Your task to perform on an android device: Go to internet settings Image 0: 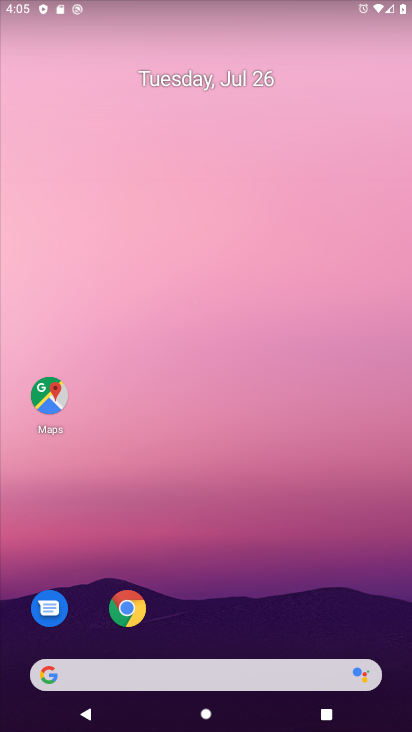
Step 0: drag from (381, 692) to (290, 182)
Your task to perform on an android device: Go to internet settings Image 1: 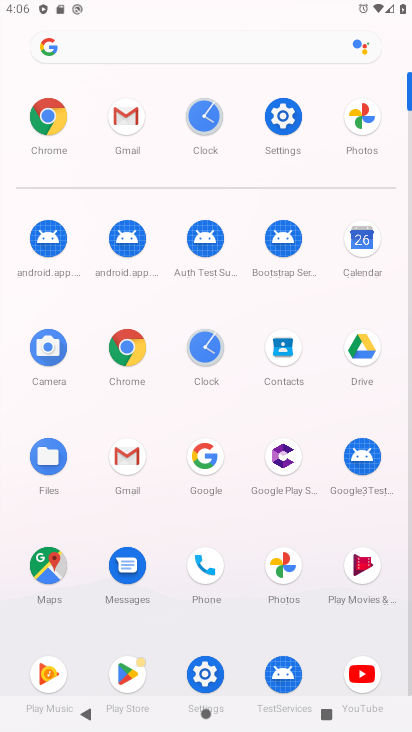
Step 1: click (281, 116)
Your task to perform on an android device: Go to internet settings Image 2: 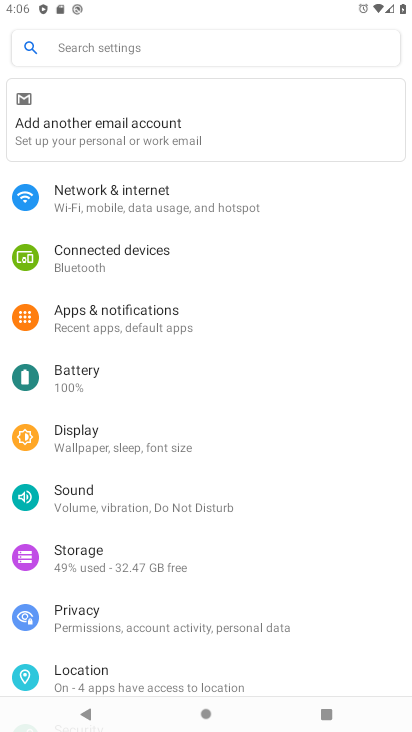
Step 2: click (128, 199)
Your task to perform on an android device: Go to internet settings Image 3: 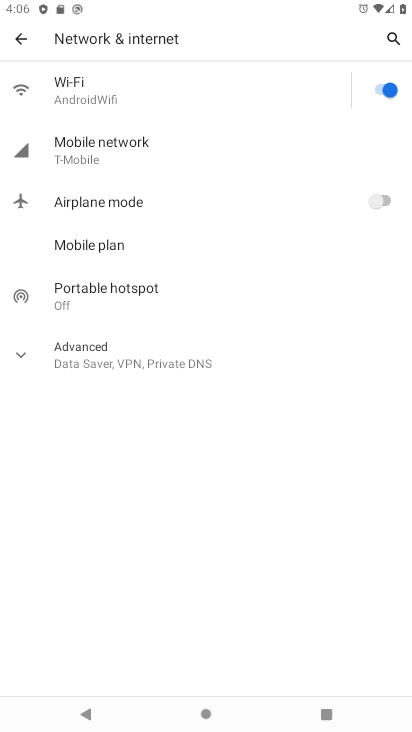
Step 3: click (19, 367)
Your task to perform on an android device: Go to internet settings Image 4: 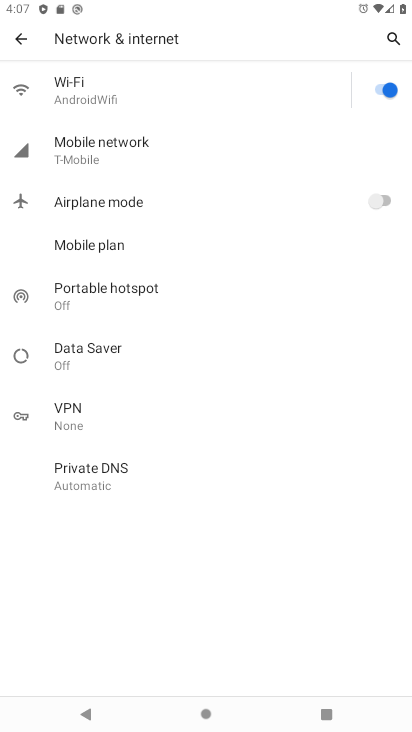
Step 4: task complete